Your task to perform on an android device: Check the news Image 0: 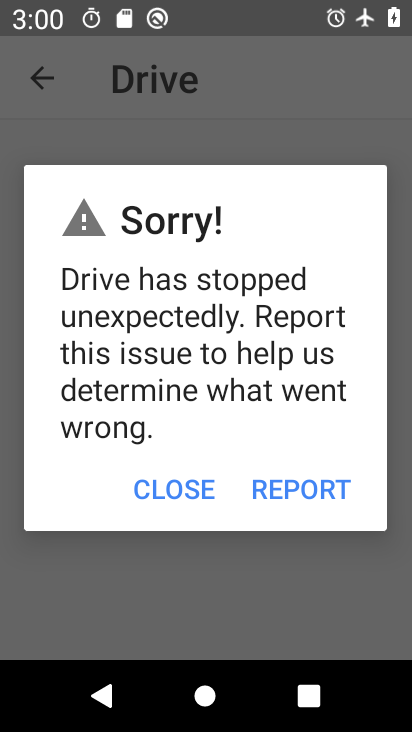
Step 0: press home button
Your task to perform on an android device: Check the news Image 1: 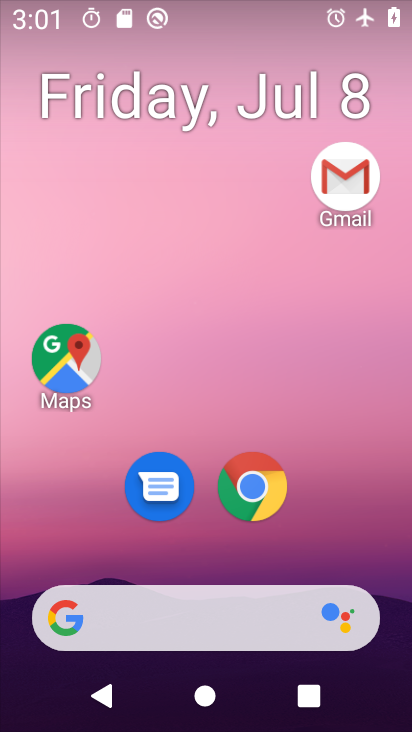
Step 1: task complete